Your task to perform on an android device: Open the calendar app, open the side menu, and click the "Day" option Image 0: 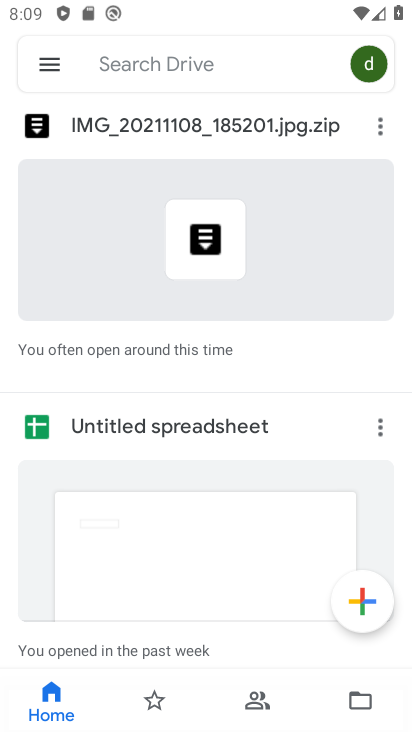
Step 0: press home button
Your task to perform on an android device: Open the calendar app, open the side menu, and click the "Day" option Image 1: 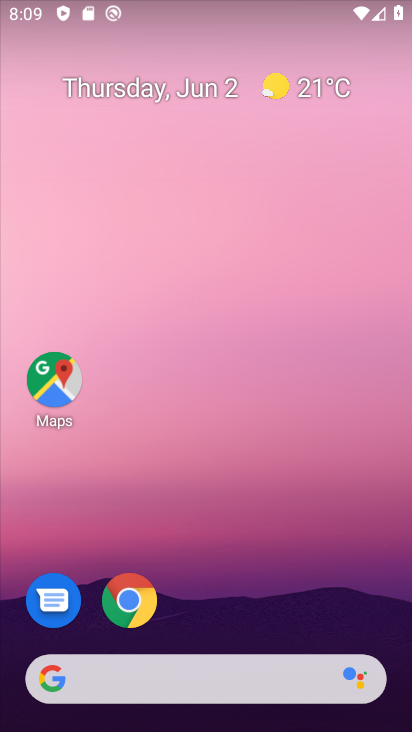
Step 1: drag from (217, 637) to (207, 145)
Your task to perform on an android device: Open the calendar app, open the side menu, and click the "Day" option Image 2: 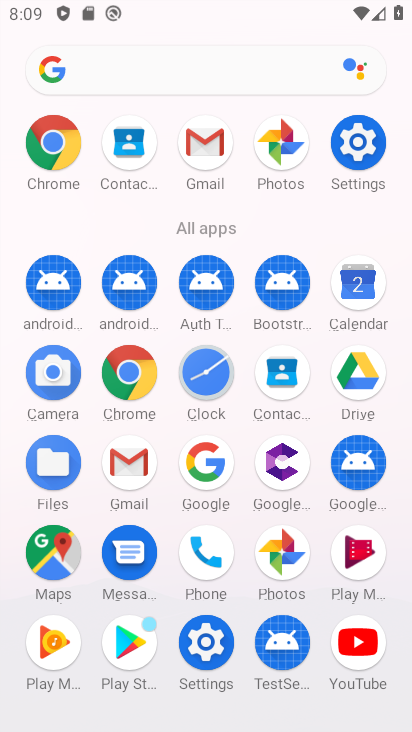
Step 2: click (349, 307)
Your task to perform on an android device: Open the calendar app, open the side menu, and click the "Day" option Image 3: 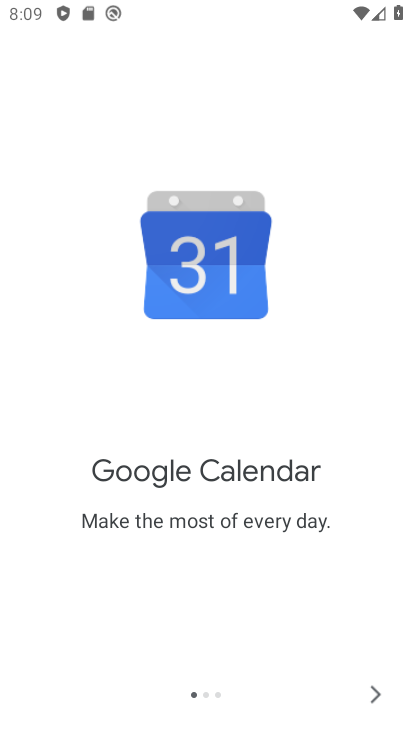
Step 3: click (377, 695)
Your task to perform on an android device: Open the calendar app, open the side menu, and click the "Day" option Image 4: 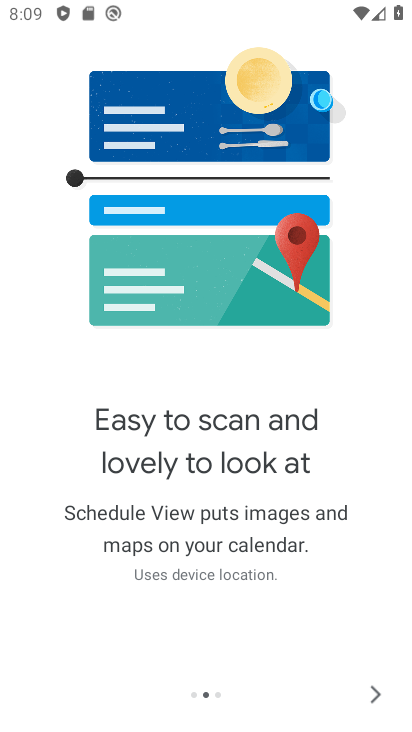
Step 4: click (377, 695)
Your task to perform on an android device: Open the calendar app, open the side menu, and click the "Day" option Image 5: 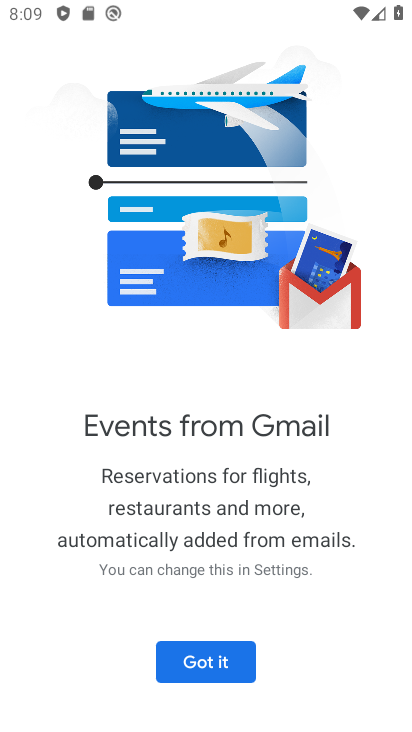
Step 5: click (212, 651)
Your task to perform on an android device: Open the calendar app, open the side menu, and click the "Day" option Image 6: 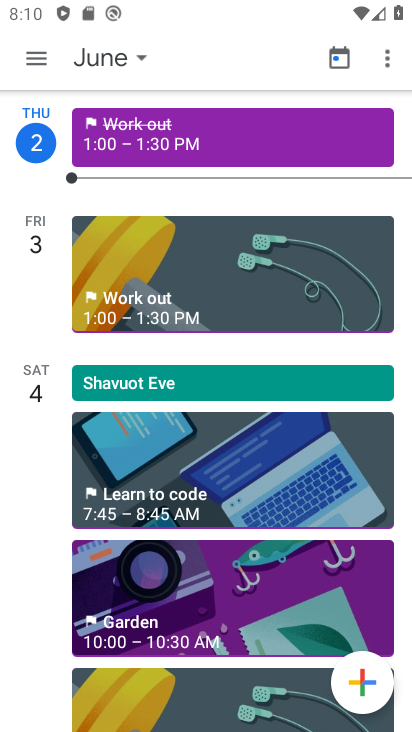
Step 6: click (37, 62)
Your task to perform on an android device: Open the calendar app, open the side menu, and click the "Day" option Image 7: 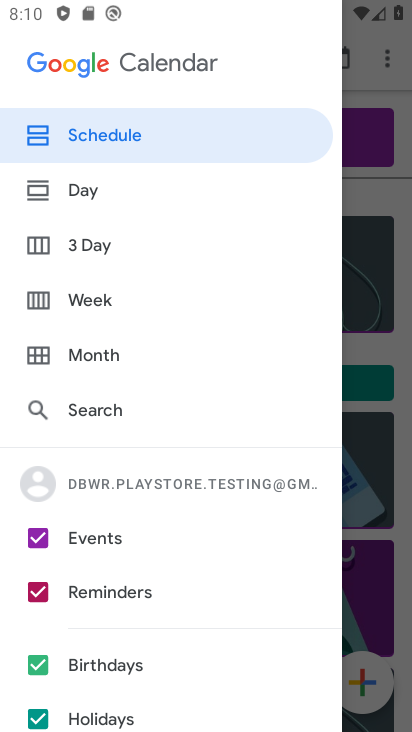
Step 7: click (107, 181)
Your task to perform on an android device: Open the calendar app, open the side menu, and click the "Day" option Image 8: 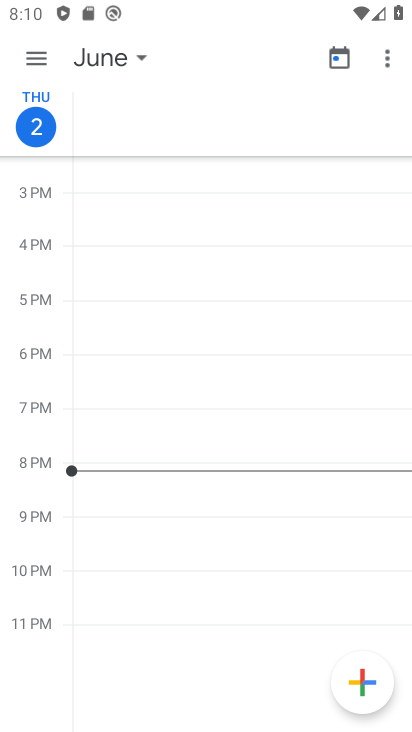
Step 8: task complete